Your task to perform on an android device: Open Chrome and go to settings Image 0: 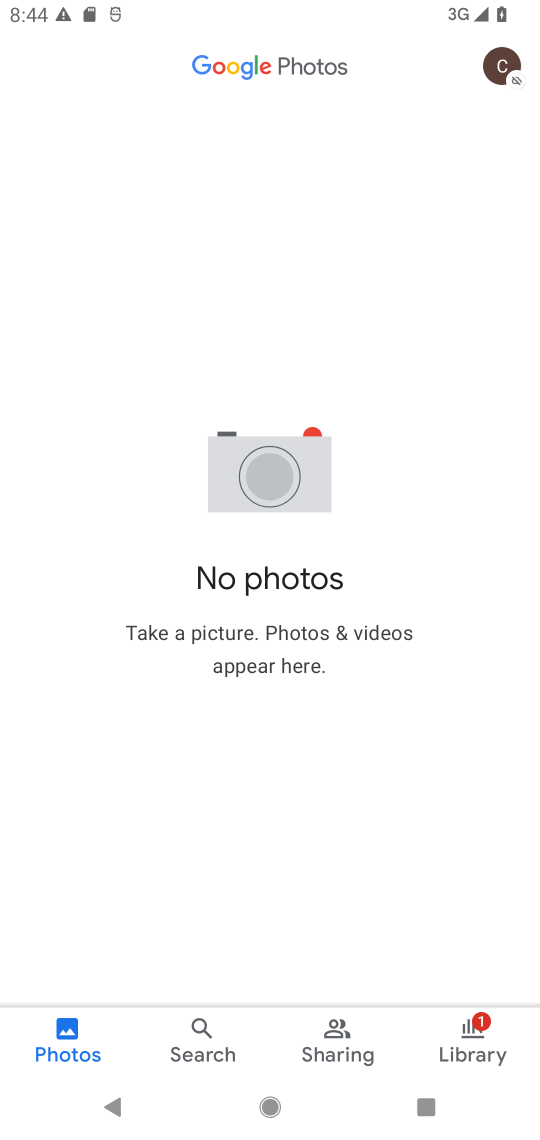
Step 0: press home button
Your task to perform on an android device: Open Chrome and go to settings Image 1: 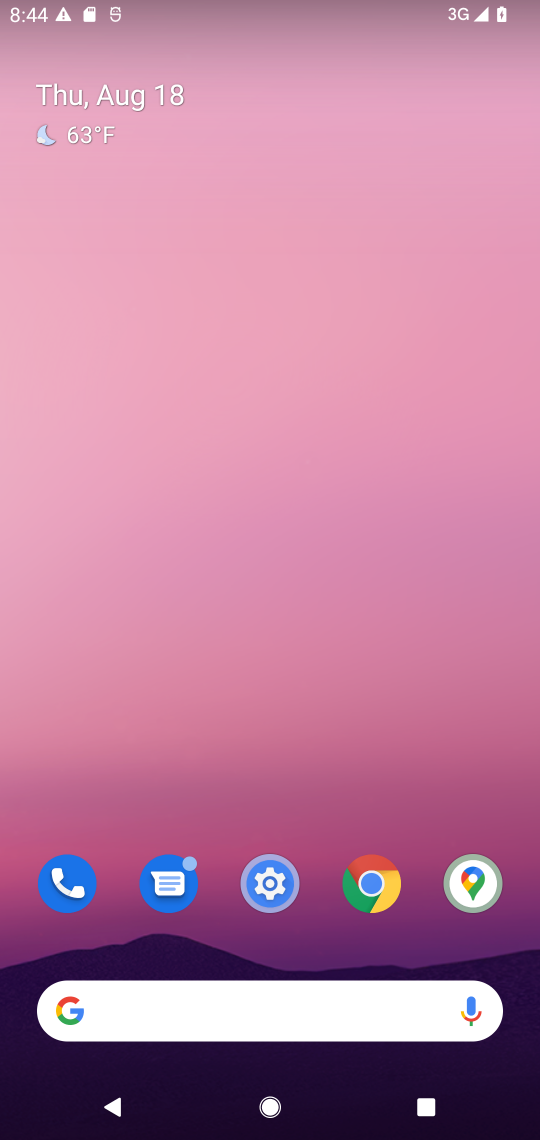
Step 1: click (379, 891)
Your task to perform on an android device: Open Chrome and go to settings Image 2: 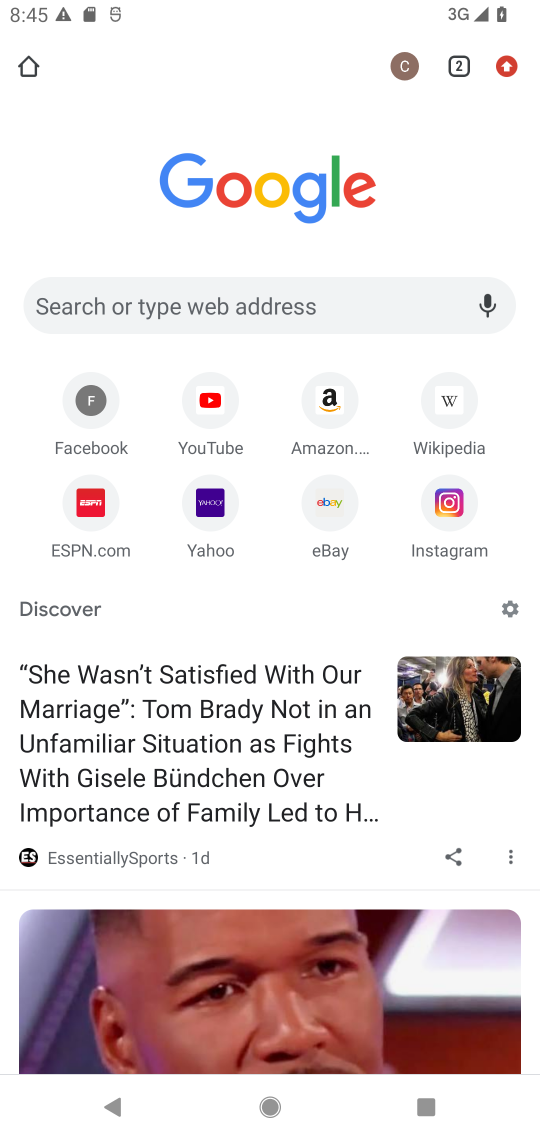
Step 2: click (506, 72)
Your task to perform on an android device: Open Chrome and go to settings Image 3: 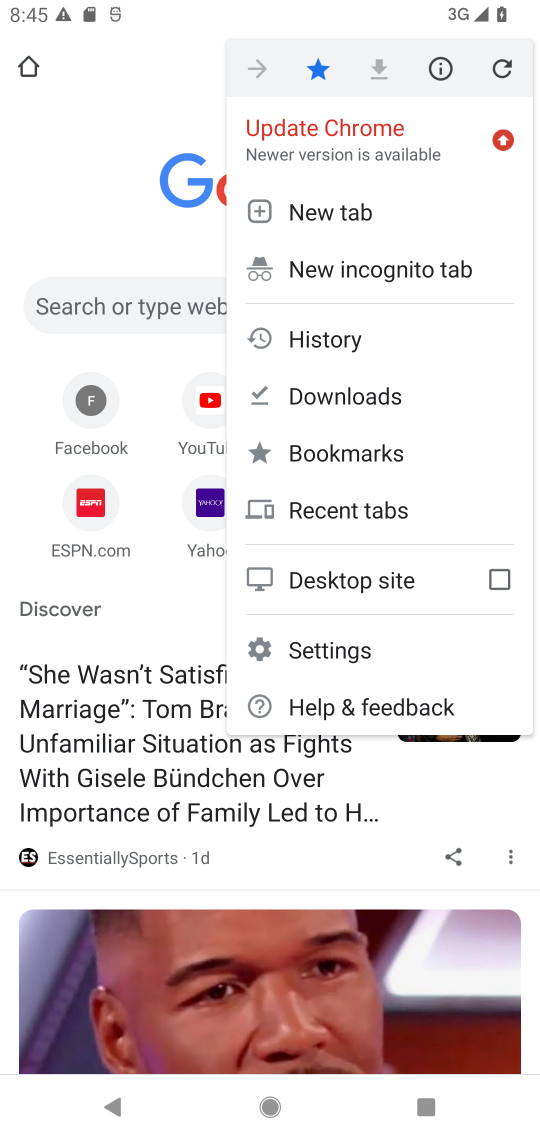
Step 3: click (349, 638)
Your task to perform on an android device: Open Chrome and go to settings Image 4: 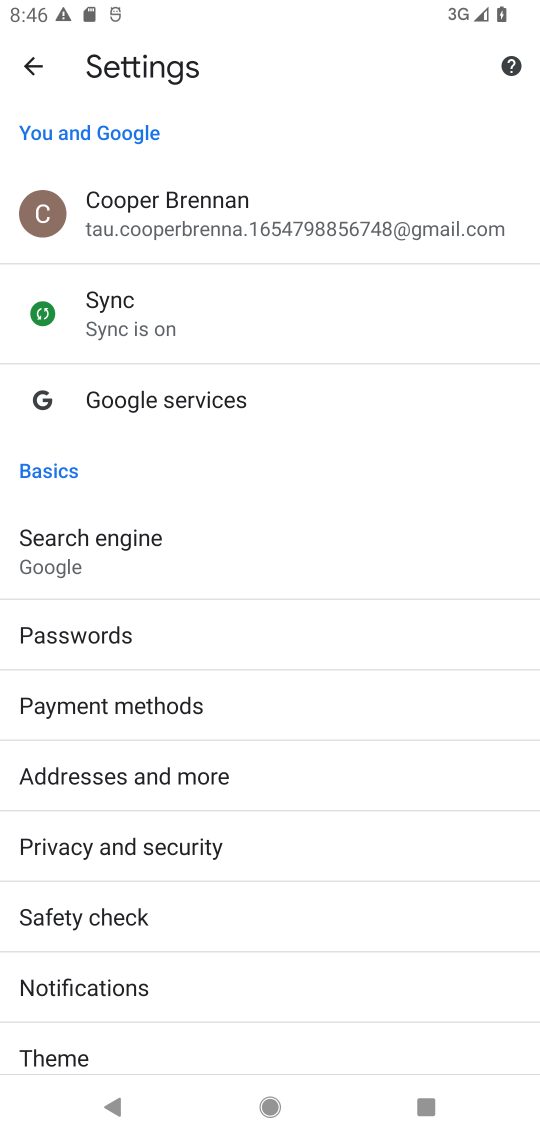
Step 4: task complete